Your task to perform on an android device: Open ESPN.com Image 0: 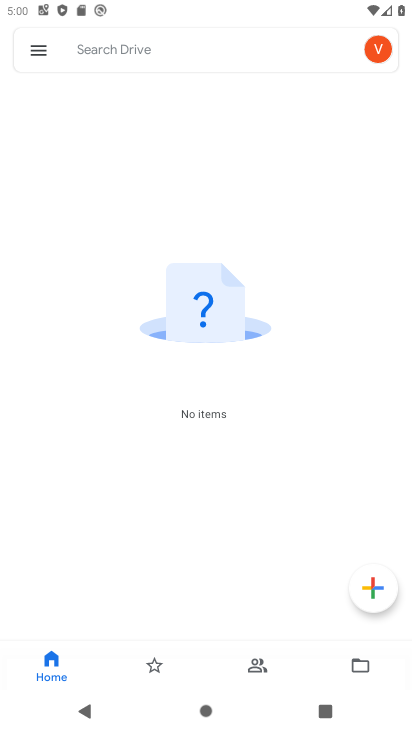
Step 0: press home button
Your task to perform on an android device: Open ESPN.com Image 1: 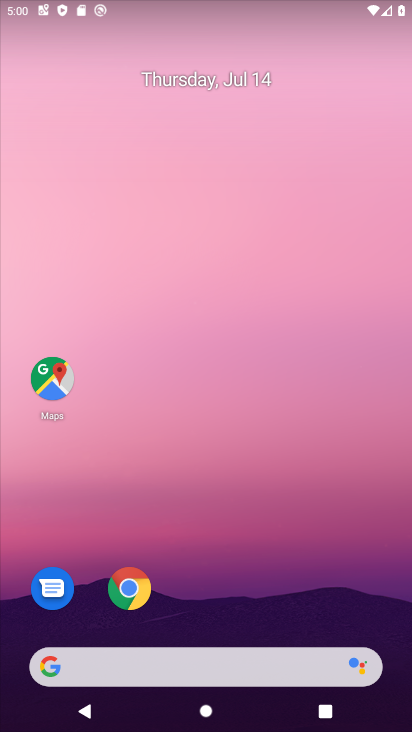
Step 1: click (126, 599)
Your task to perform on an android device: Open ESPN.com Image 2: 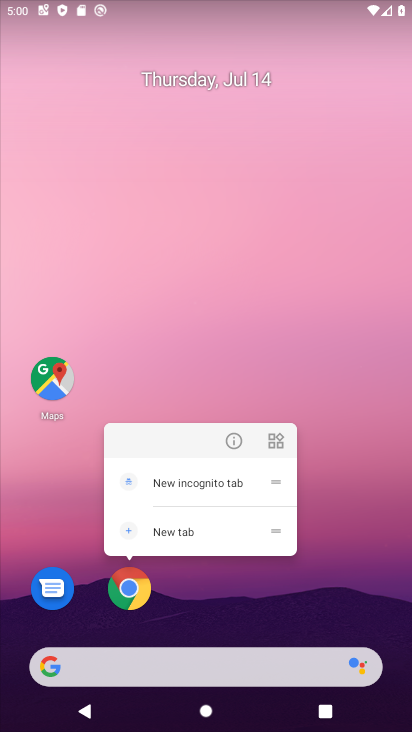
Step 2: click (130, 600)
Your task to perform on an android device: Open ESPN.com Image 3: 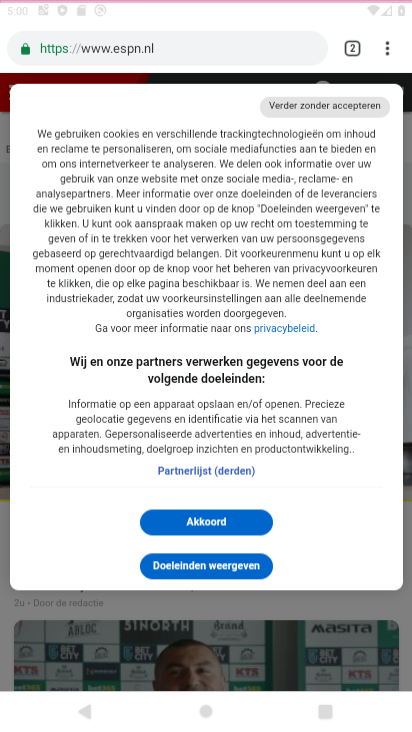
Step 3: click (130, 589)
Your task to perform on an android device: Open ESPN.com Image 4: 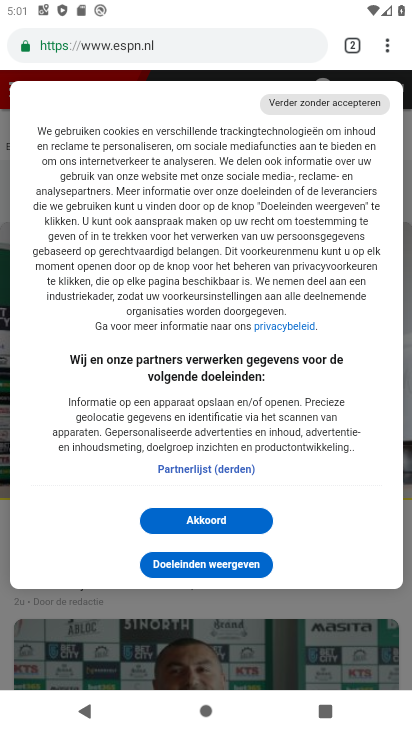
Step 4: task complete